Your task to perform on an android device: Show me popular games on the Play Store Image 0: 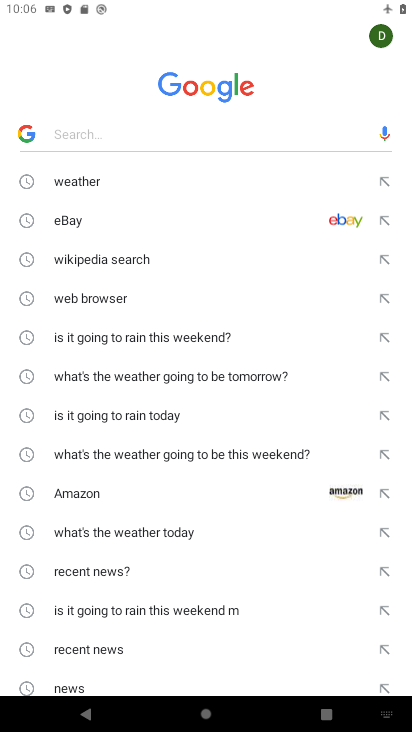
Step 0: press home button
Your task to perform on an android device: Show me popular games on the Play Store Image 1: 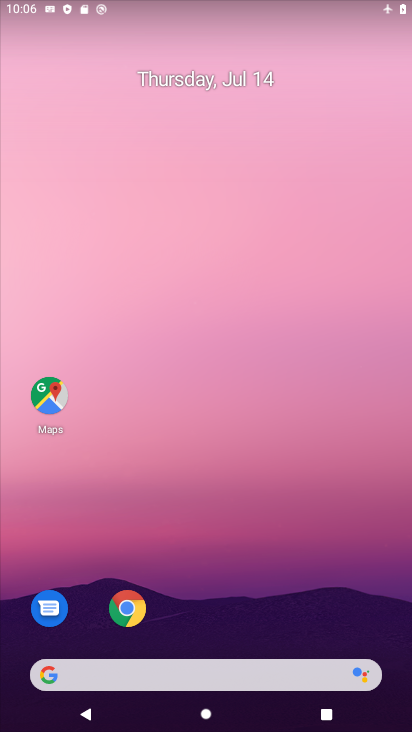
Step 1: drag from (189, 581) to (200, 5)
Your task to perform on an android device: Show me popular games on the Play Store Image 2: 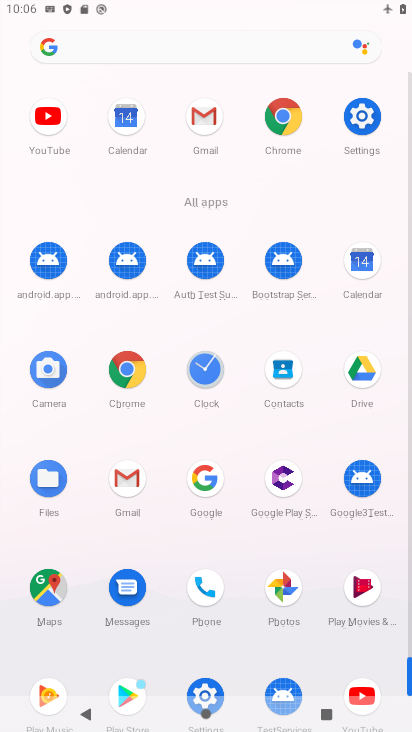
Step 2: click (130, 687)
Your task to perform on an android device: Show me popular games on the Play Store Image 3: 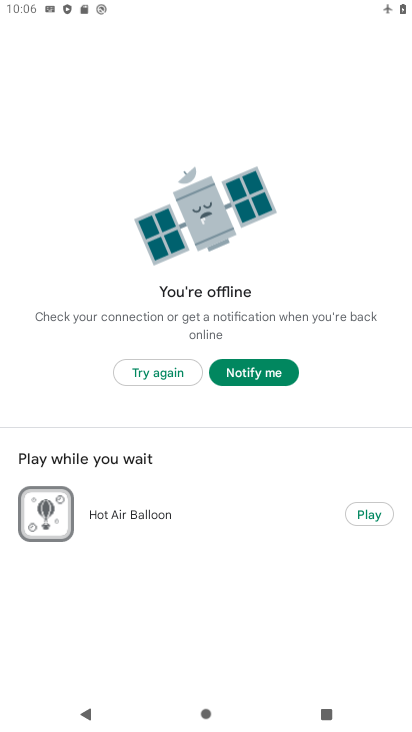
Step 3: click (145, 370)
Your task to perform on an android device: Show me popular games on the Play Store Image 4: 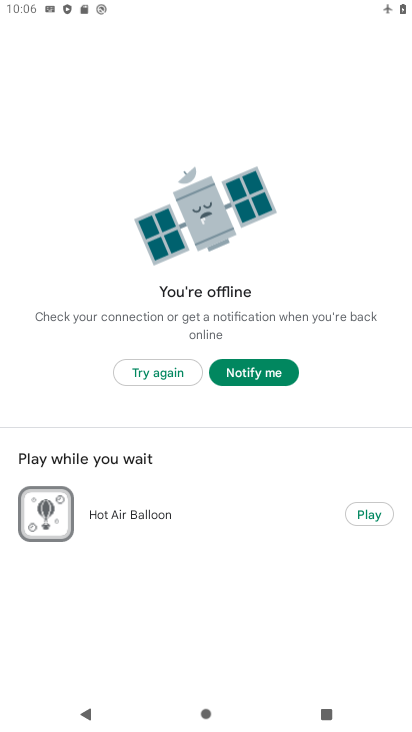
Step 4: click (150, 369)
Your task to perform on an android device: Show me popular games on the Play Store Image 5: 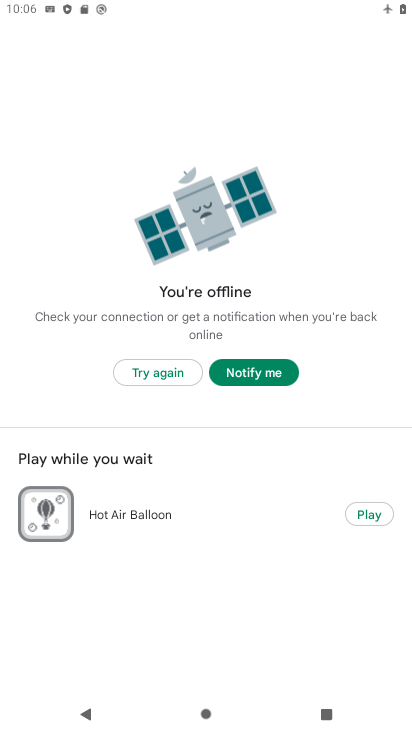
Step 5: click (150, 369)
Your task to perform on an android device: Show me popular games on the Play Store Image 6: 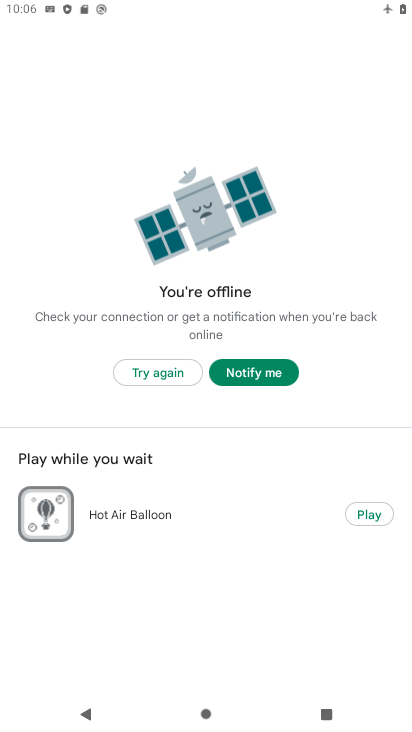
Step 6: click (172, 373)
Your task to perform on an android device: Show me popular games on the Play Store Image 7: 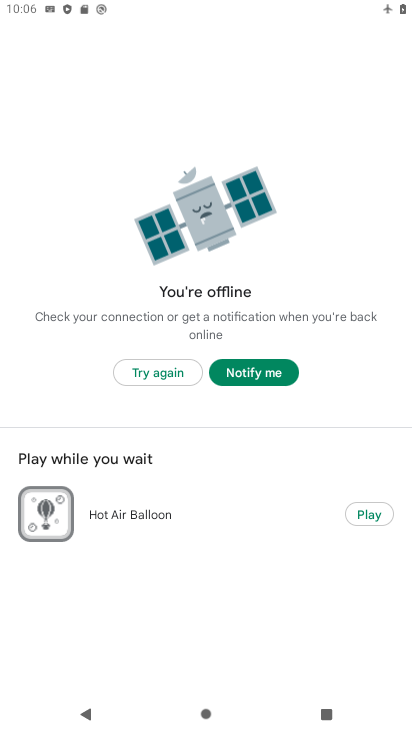
Step 7: click (168, 373)
Your task to perform on an android device: Show me popular games on the Play Store Image 8: 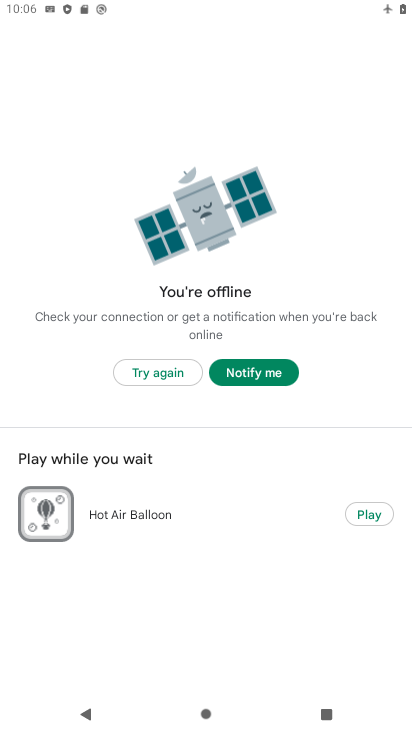
Step 8: click (169, 376)
Your task to perform on an android device: Show me popular games on the Play Store Image 9: 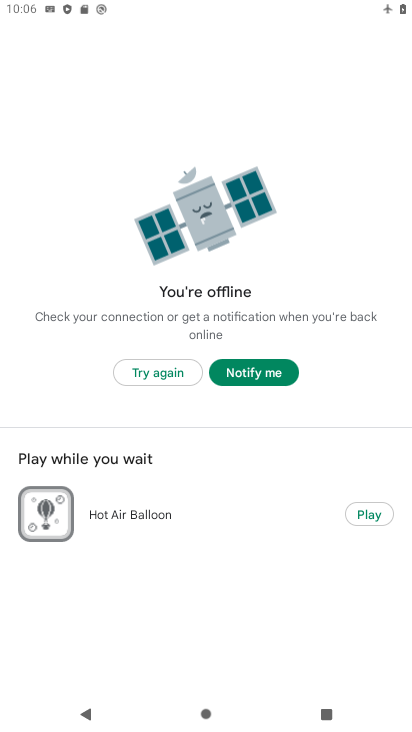
Step 9: task complete